Your task to perform on an android device: turn off notifications in google photos Image 0: 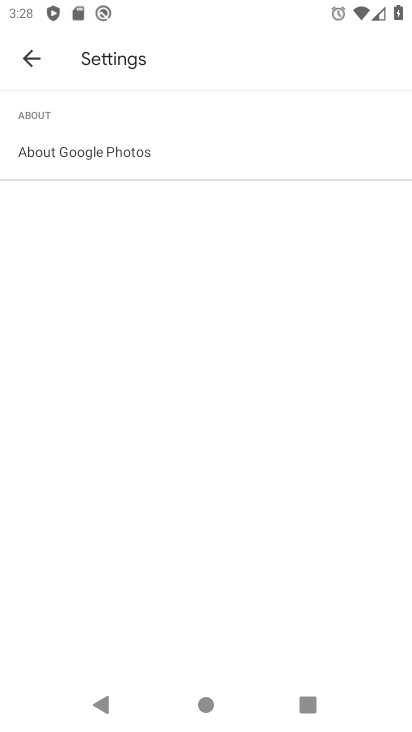
Step 0: drag from (298, 613) to (318, 530)
Your task to perform on an android device: turn off notifications in google photos Image 1: 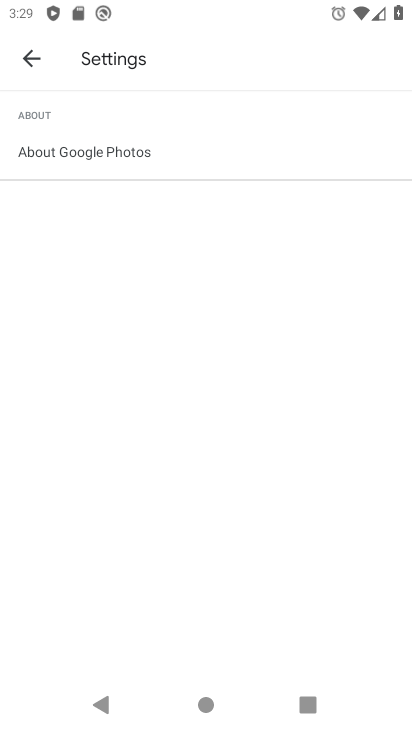
Step 1: click (27, 58)
Your task to perform on an android device: turn off notifications in google photos Image 2: 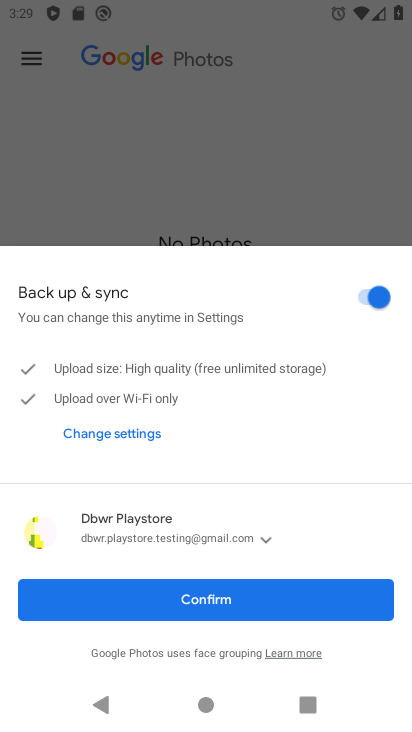
Step 2: click (205, 605)
Your task to perform on an android device: turn off notifications in google photos Image 3: 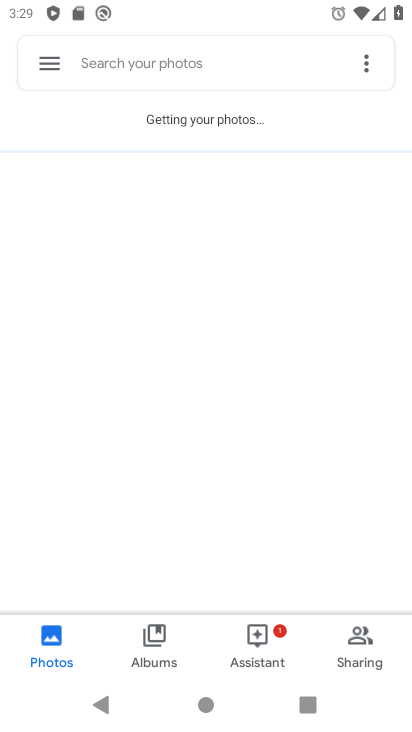
Step 3: drag from (227, 528) to (178, 200)
Your task to perform on an android device: turn off notifications in google photos Image 4: 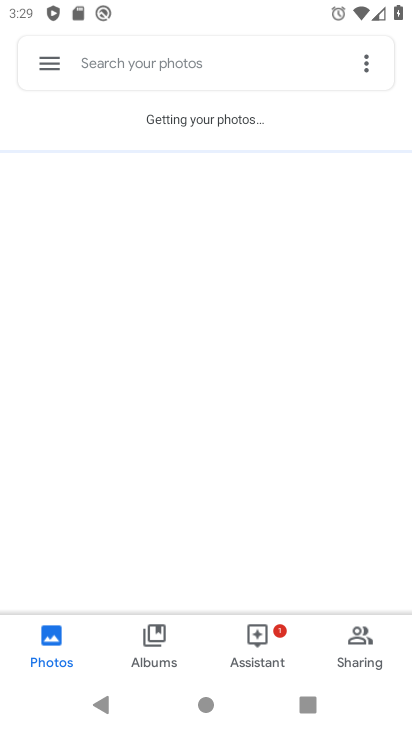
Step 4: press back button
Your task to perform on an android device: turn off notifications in google photos Image 5: 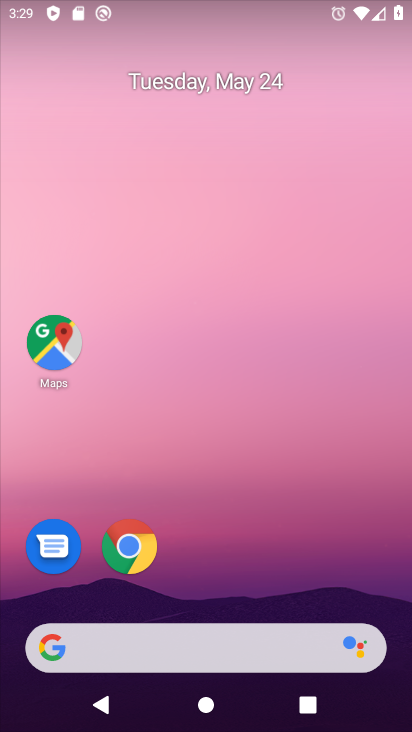
Step 5: drag from (250, 488) to (160, 129)
Your task to perform on an android device: turn off notifications in google photos Image 6: 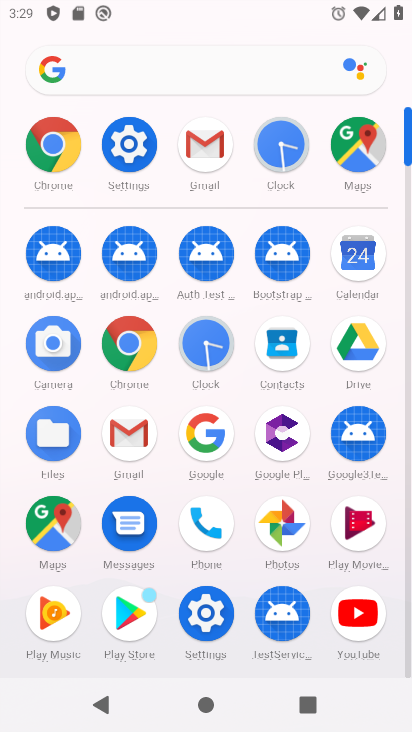
Step 6: click (271, 516)
Your task to perform on an android device: turn off notifications in google photos Image 7: 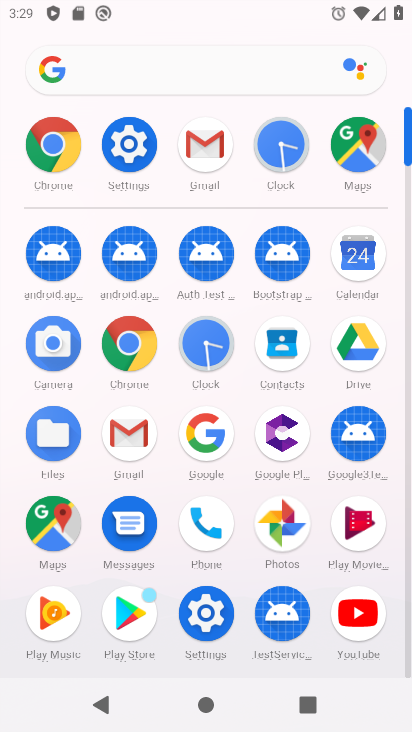
Step 7: click (271, 516)
Your task to perform on an android device: turn off notifications in google photos Image 8: 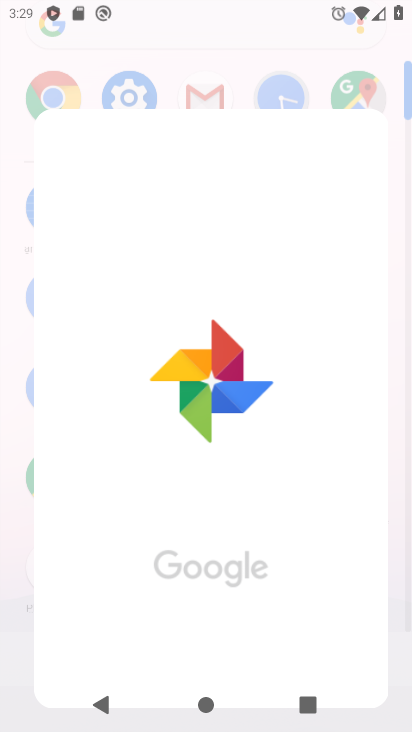
Step 8: click (273, 515)
Your task to perform on an android device: turn off notifications in google photos Image 9: 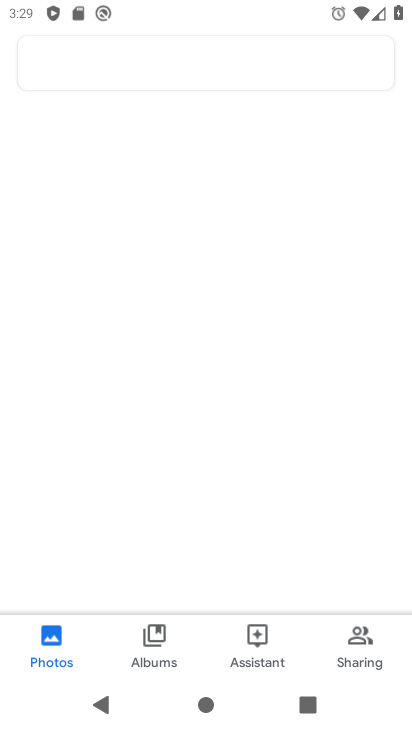
Step 9: click (279, 512)
Your task to perform on an android device: turn off notifications in google photos Image 10: 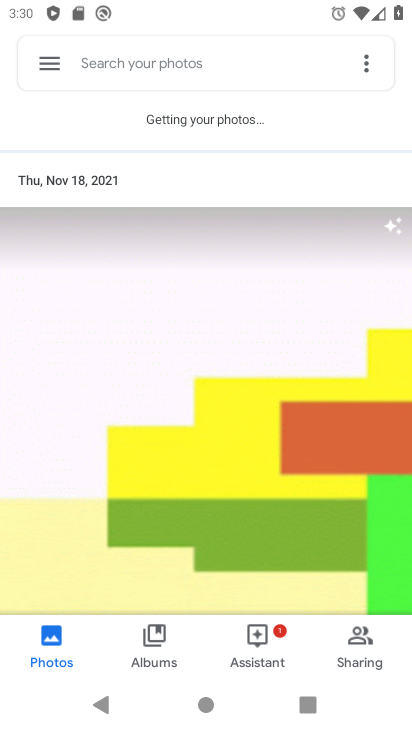
Step 10: press back button
Your task to perform on an android device: turn off notifications in google photos Image 11: 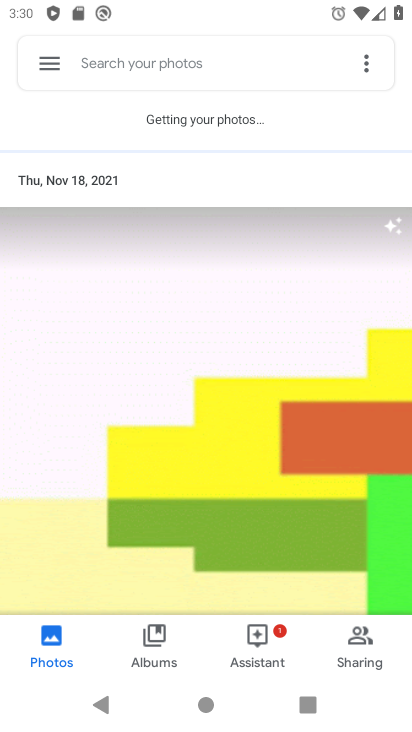
Step 11: press back button
Your task to perform on an android device: turn off notifications in google photos Image 12: 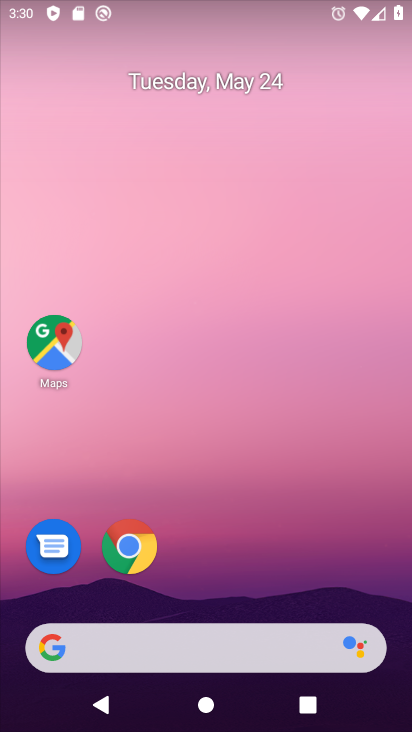
Step 12: drag from (270, 688) to (227, 165)
Your task to perform on an android device: turn off notifications in google photos Image 13: 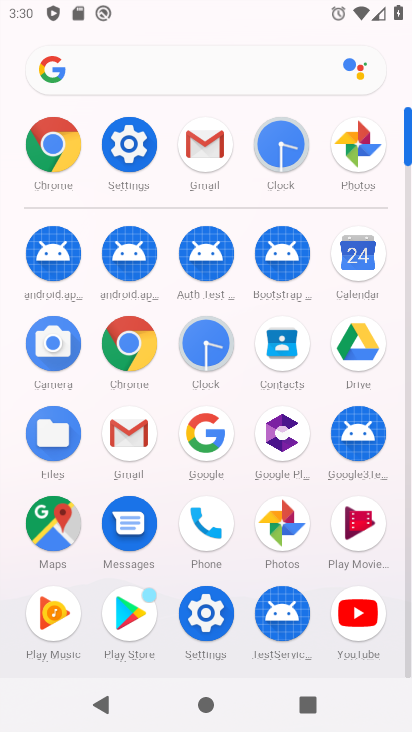
Step 13: click (278, 517)
Your task to perform on an android device: turn off notifications in google photos Image 14: 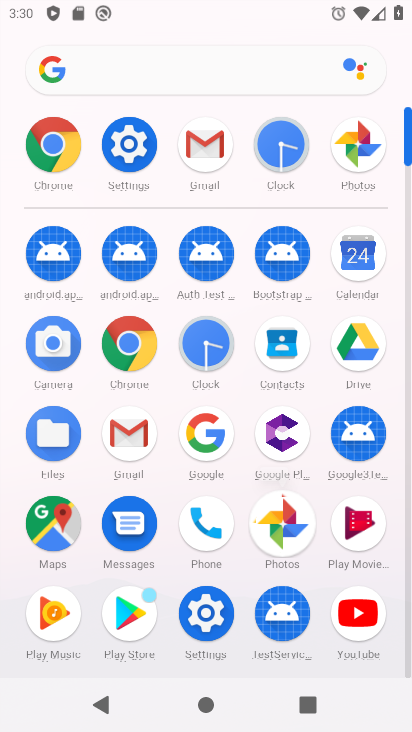
Step 14: click (280, 516)
Your task to perform on an android device: turn off notifications in google photos Image 15: 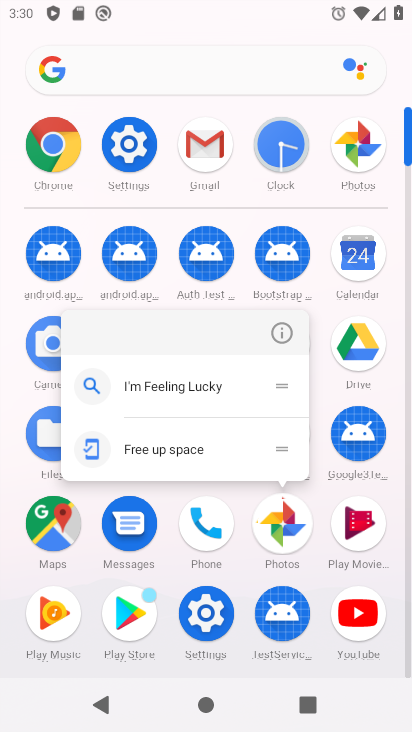
Step 15: click (280, 516)
Your task to perform on an android device: turn off notifications in google photos Image 16: 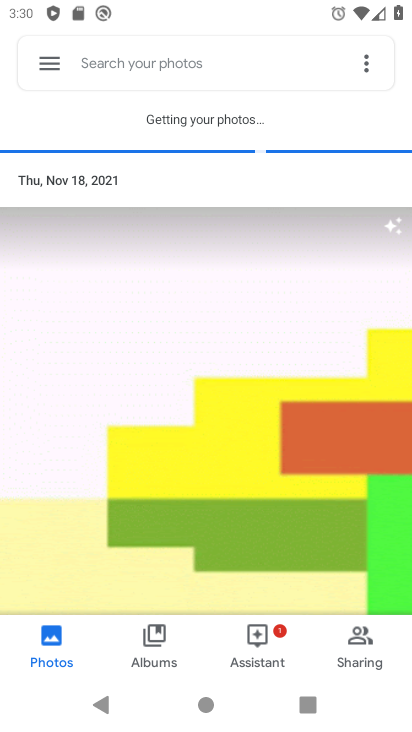
Step 16: drag from (49, 68) to (95, 465)
Your task to perform on an android device: turn off notifications in google photos Image 17: 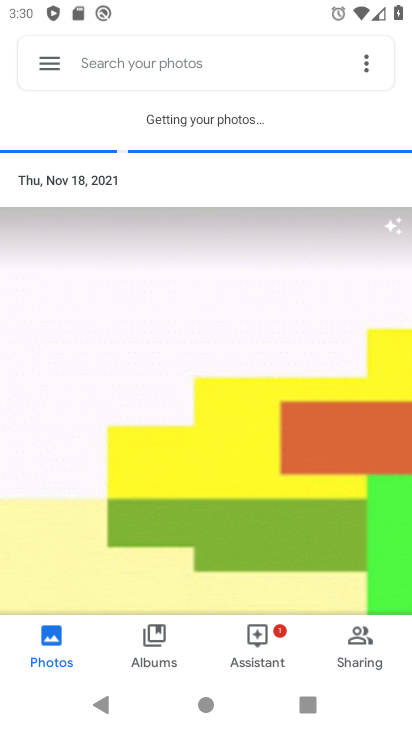
Step 17: drag from (51, 71) to (136, 371)
Your task to perform on an android device: turn off notifications in google photos Image 18: 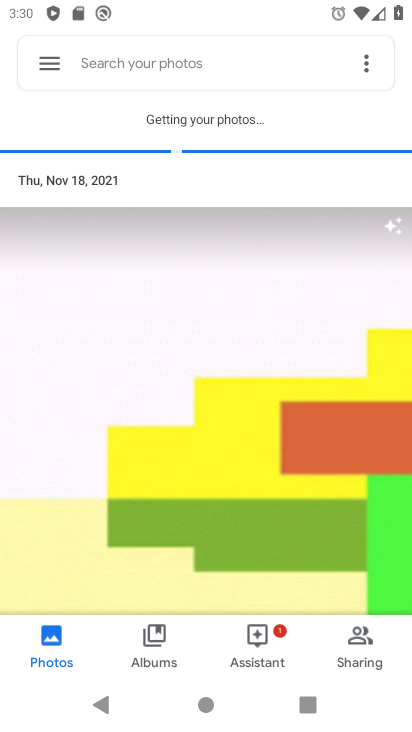
Step 18: click (49, 69)
Your task to perform on an android device: turn off notifications in google photos Image 19: 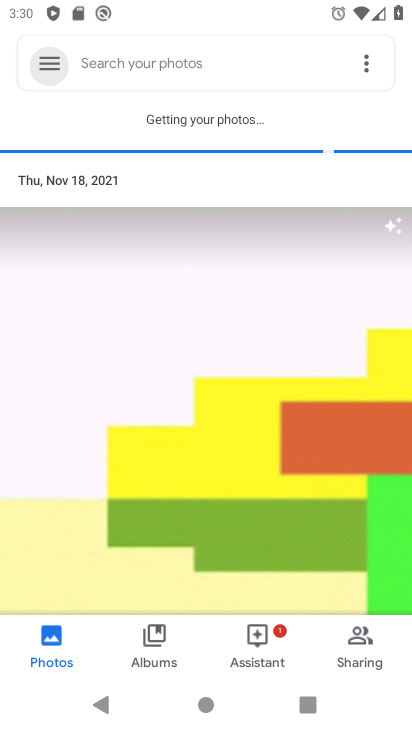
Step 19: click (51, 67)
Your task to perform on an android device: turn off notifications in google photos Image 20: 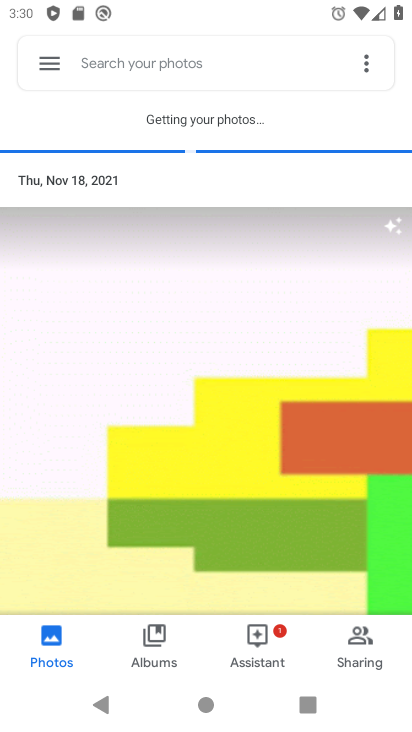
Step 20: click (44, 59)
Your task to perform on an android device: turn off notifications in google photos Image 21: 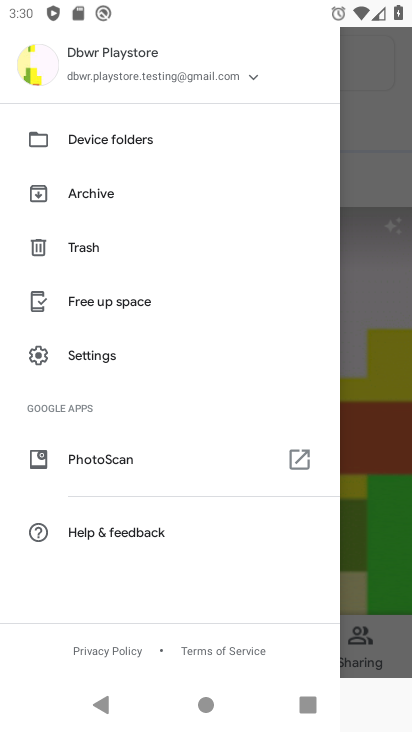
Step 21: drag from (145, 467) to (151, 138)
Your task to perform on an android device: turn off notifications in google photos Image 22: 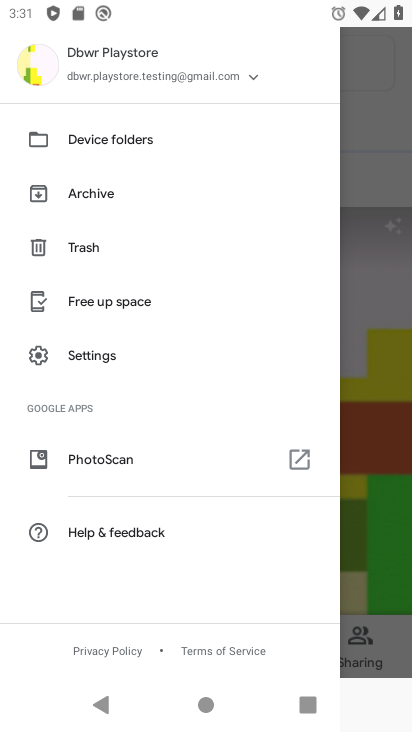
Step 22: drag from (176, 488) to (192, 207)
Your task to perform on an android device: turn off notifications in google photos Image 23: 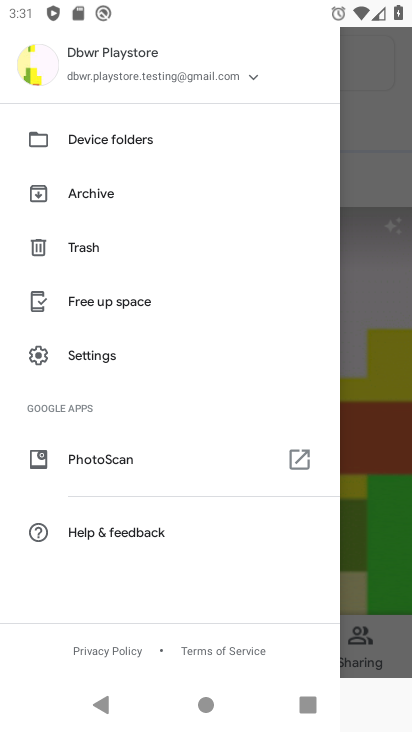
Step 23: click (92, 354)
Your task to perform on an android device: turn off notifications in google photos Image 24: 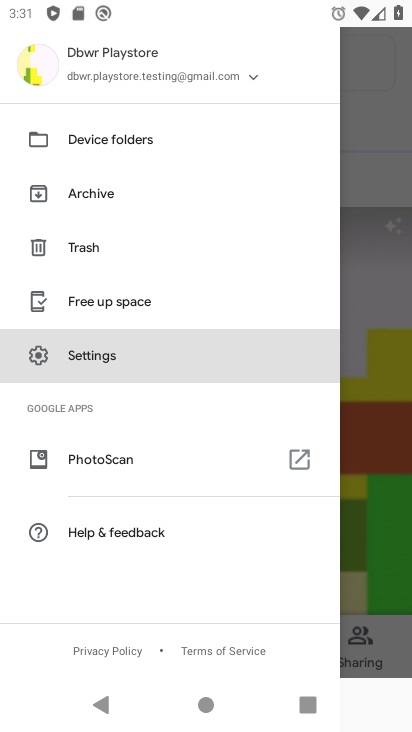
Step 24: click (95, 346)
Your task to perform on an android device: turn off notifications in google photos Image 25: 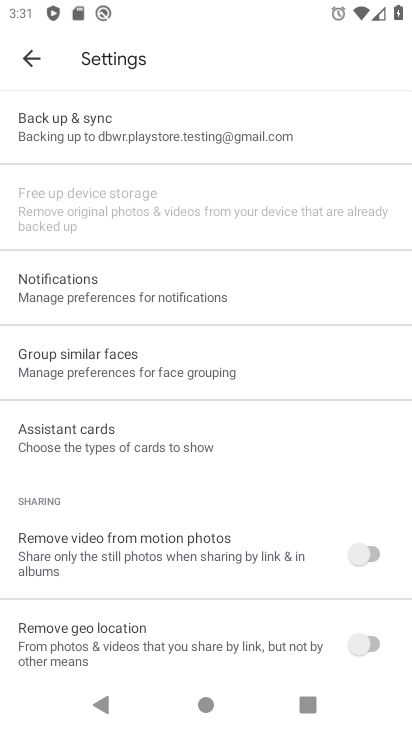
Step 25: click (91, 298)
Your task to perform on an android device: turn off notifications in google photos Image 26: 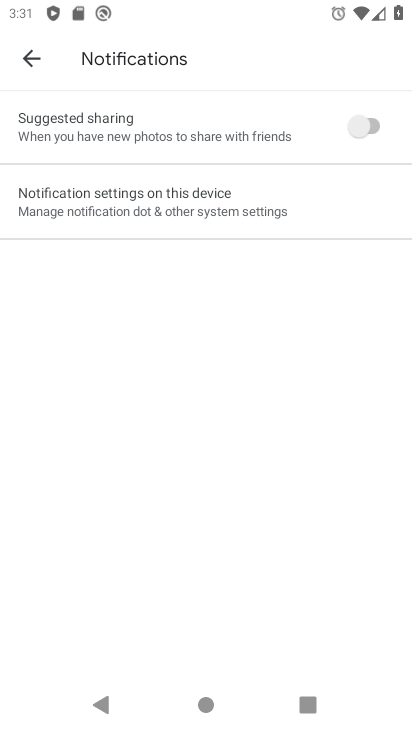
Step 26: click (124, 219)
Your task to perform on an android device: turn off notifications in google photos Image 27: 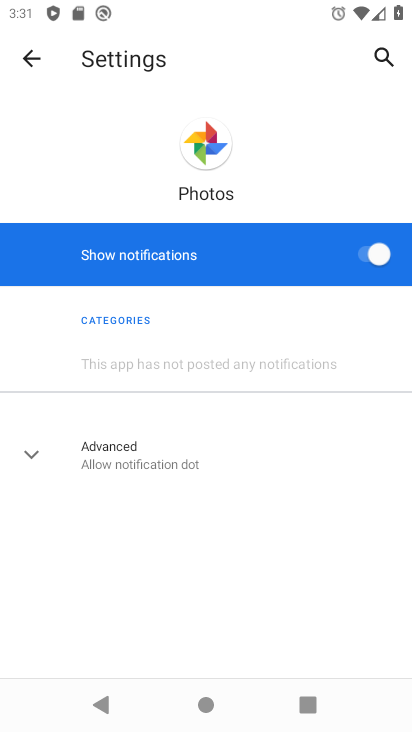
Step 27: click (375, 241)
Your task to perform on an android device: turn off notifications in google photos Image 28: 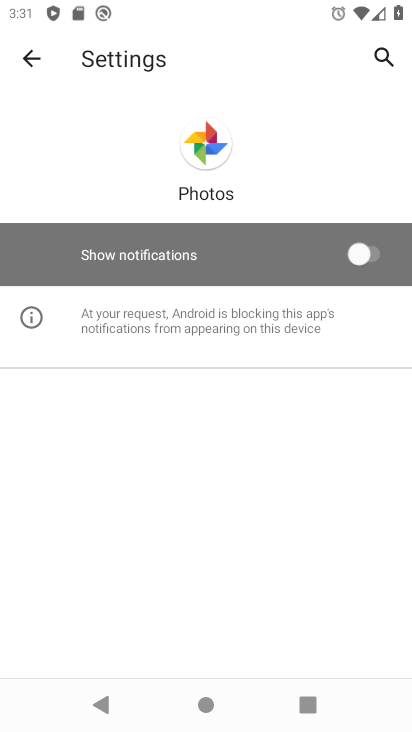
Step 28: task complete